Your task to perform on an android device: turn on improve location accuracy Image 0: 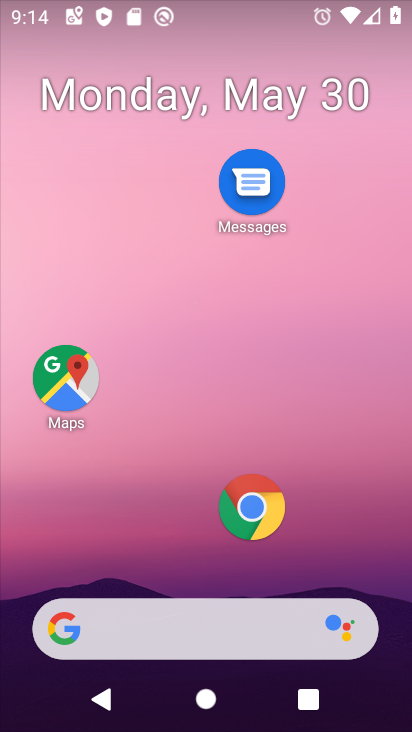
Step 0: drag from (206, 512) to (220, 5)
Your task to perform on an android device: turn on improve location accuracy Image 1: 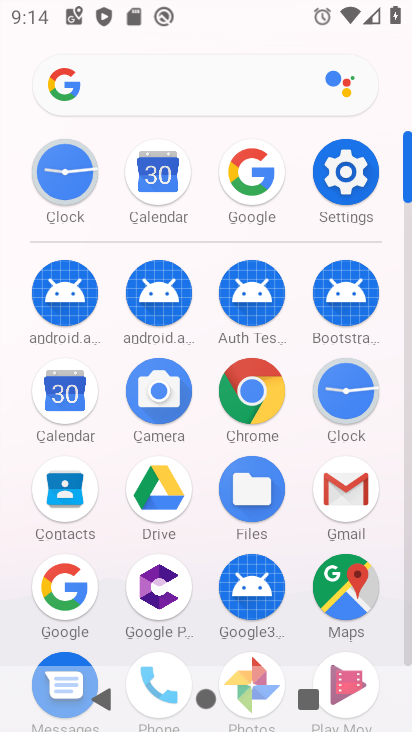
Step 1: click (353, 194)
Your task to perform on an android device: turn on improve location accuracy Image 2: 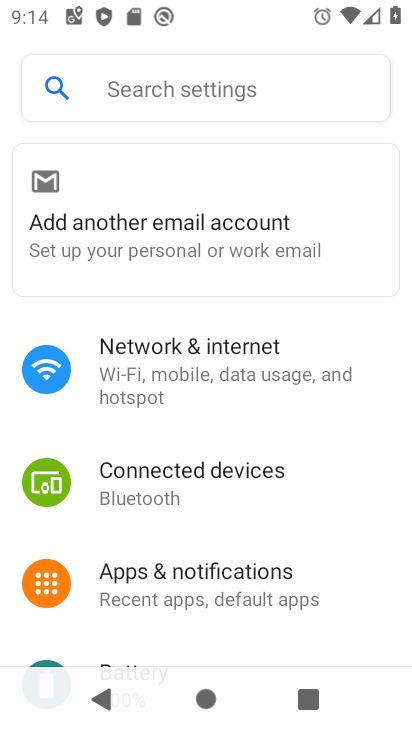
Step 2: drag from (153, 506) to (139, 236)
Your task to perform on an android device: turn on improve location accuracy Image 3: 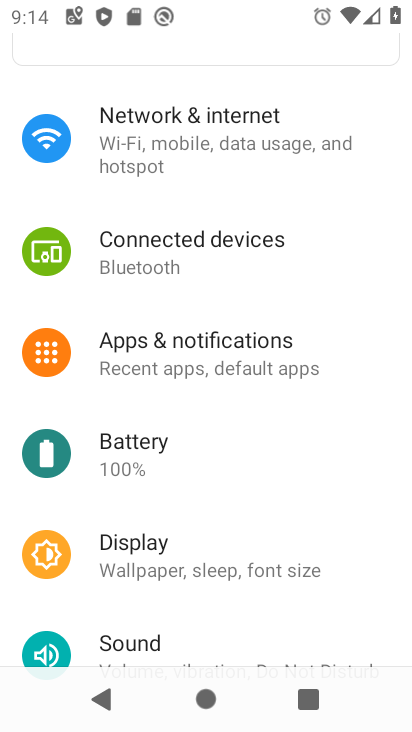
Step 3: drag from (130, 564) to (135, 261)
Your task to perform on an android device: turn on improve location accuracy Image 4: 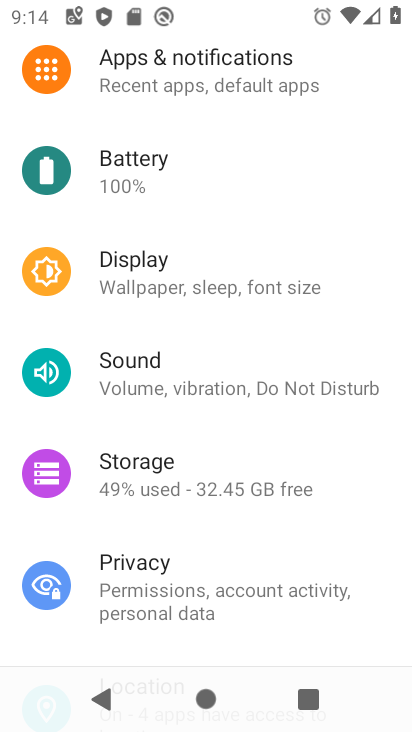
Step 4: drag from (167, 556) to (166, 243)
Your task to perform on an android device: turn on improve location accuracy Image 5: 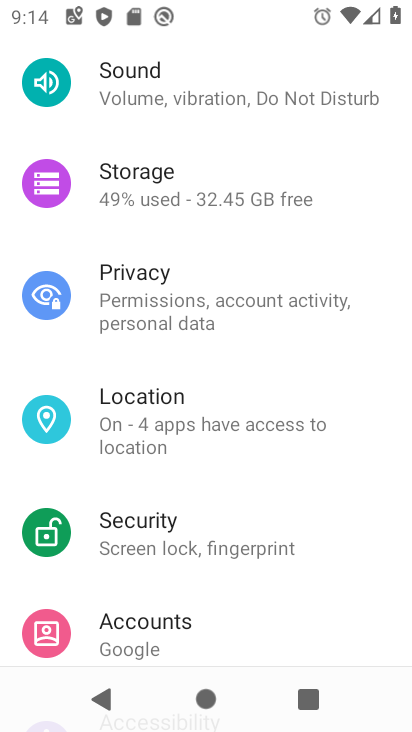
Step 5: click (115, 420)
Your task to perform on an android device: turn on improve location accuracy Image 6: 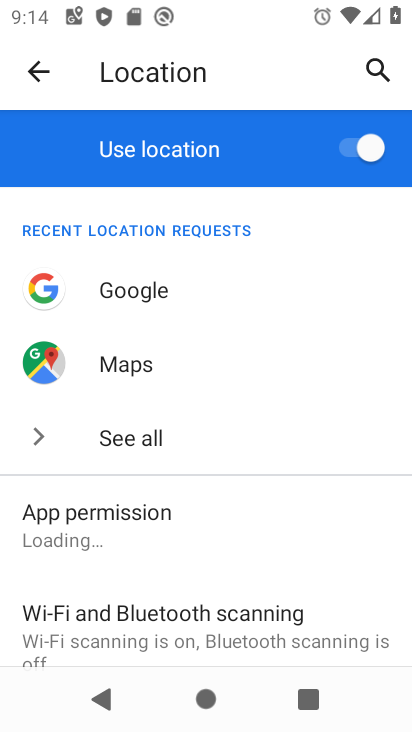
Step 6: drag from (217, 567) to (218, 234)
Your task to perform on an android device: turn on improve location accuracy Image 7: 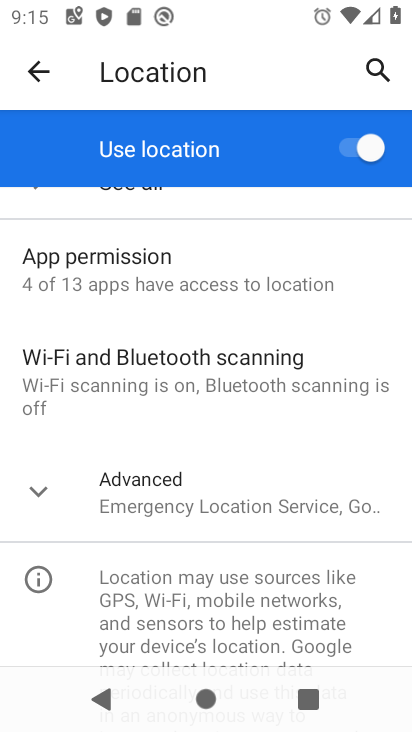
Step 7: click (169, 489)
Your task to perform on an android device: turn on improve location accuracy Image 8: 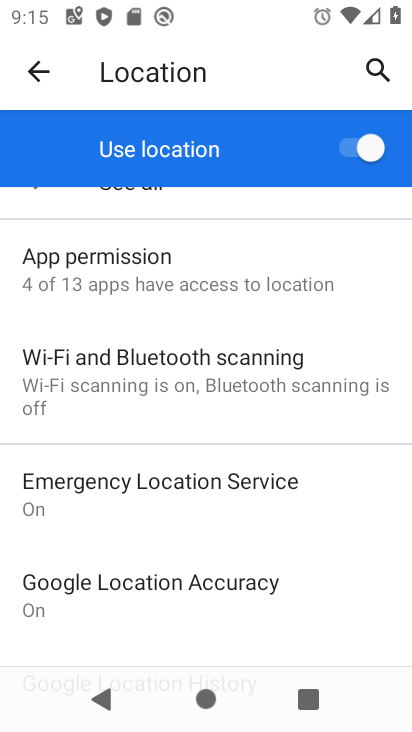
Step 8: drag from (122, 624) to (147, 542)
Your task to perform on an android device: turn on improve location accuracy Image 9: 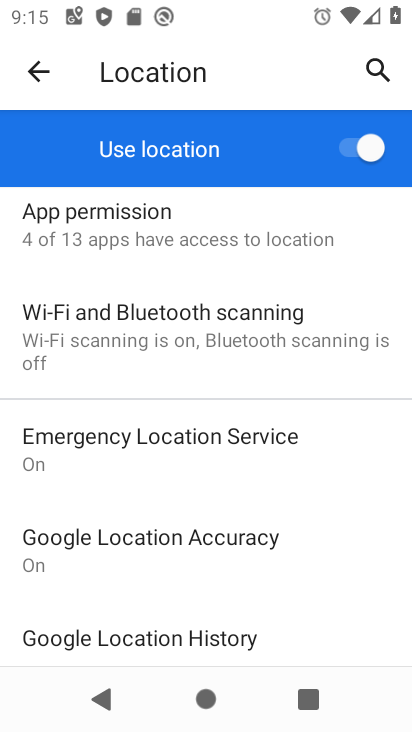
Step 9: click (149, 541)
Your task to perform on an android device: turn on improve location accuracy Image 10: 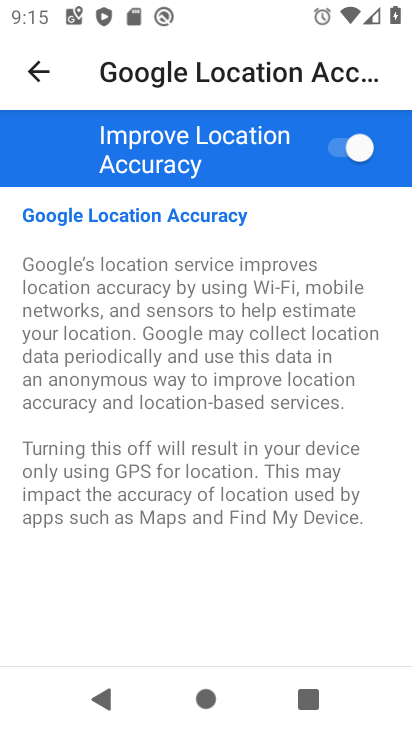
Step 10: task complete